Your task to perform on an android device: turn off location Image 0: 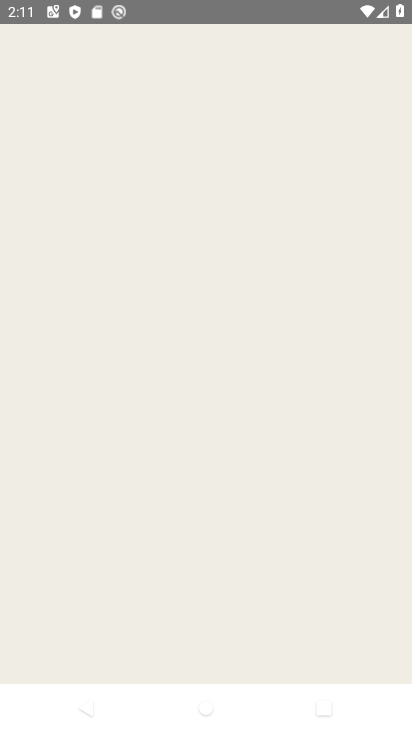
Step 0: click (300, 61)
Your task to perform on an android device: turn off location Image 1: 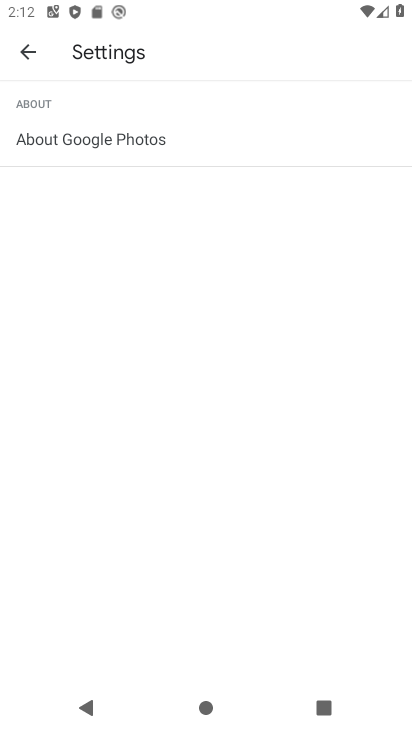
Step 1: press home button
Your task to perform on an android device: turn off location Image 2: 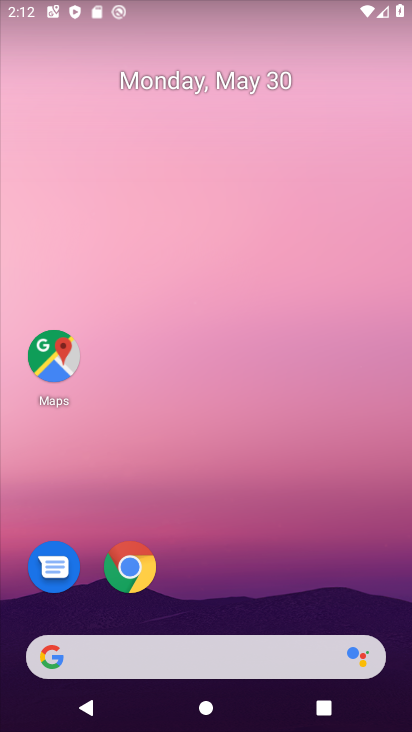
Step 2: drag from (208, 545) to (235, 189)
Your task to perform on an android device: turn off location Image 3: 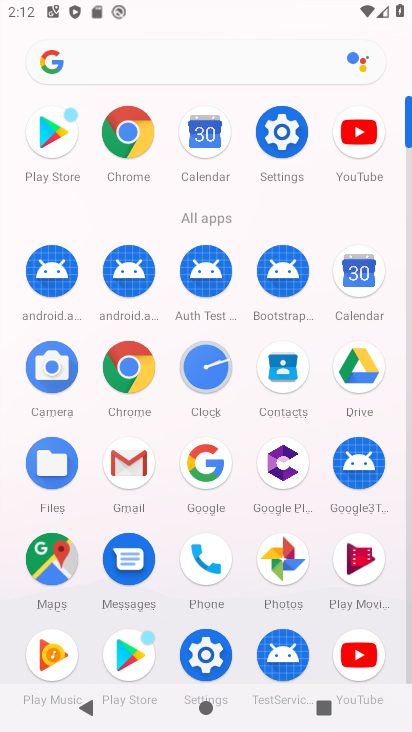
Step 3: click (294, 383)
Your task to perform on an android device: turn off location Image 4: 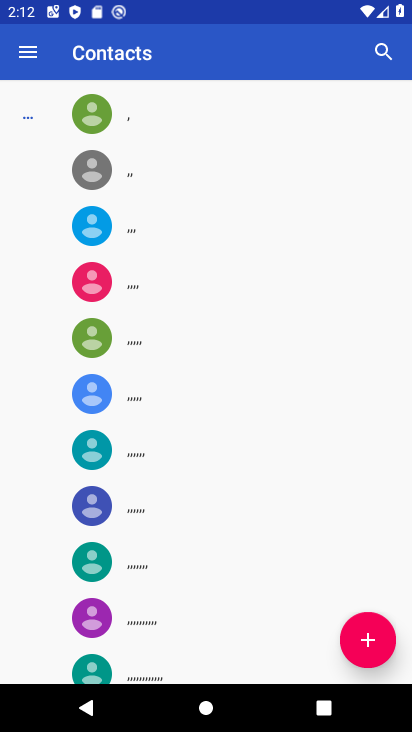
Step 4: press home button
Your task to perform on an android device: turn off location Image 5: 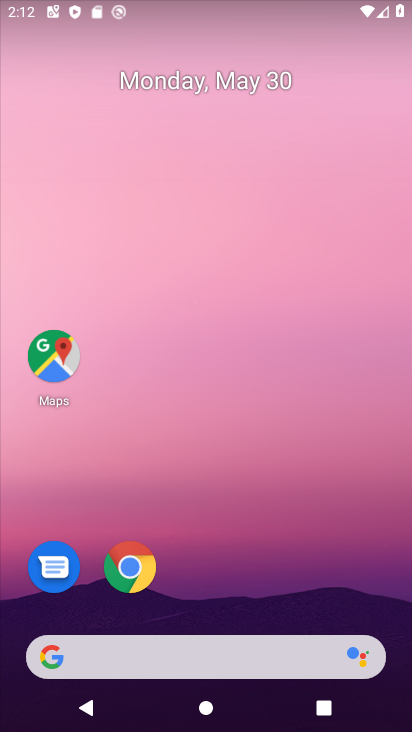
Step 5: drag from (237, 594) to (235, 91)
Your task to perform on an android device: turn off location Image 6: 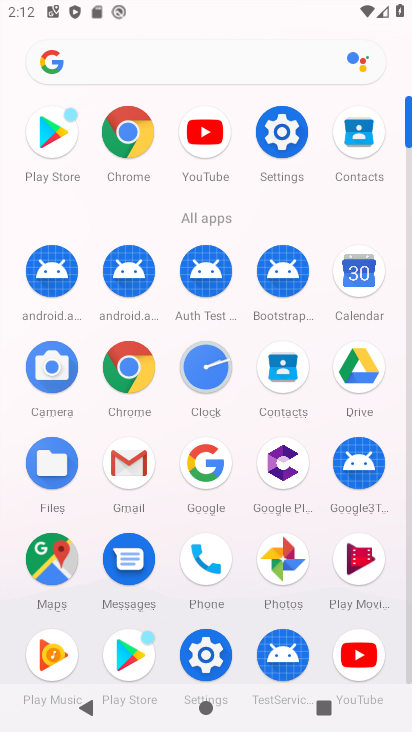
Step 6: click (198, 656)
Your task to perform on an android device: turn off location Image 7: 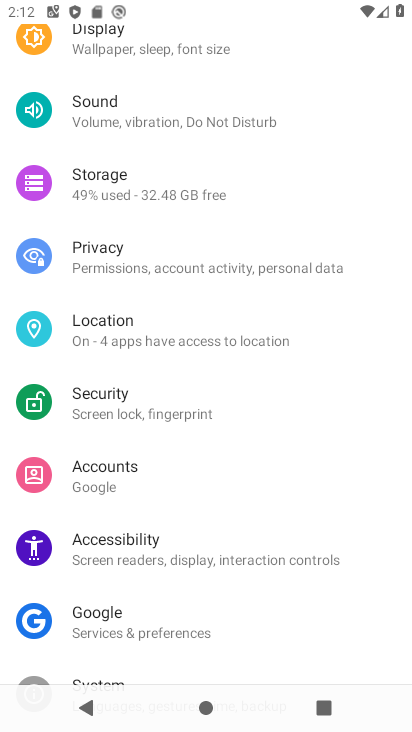
Step 7: click (151, 335)
Your task to perform on an android device: turn off location Image 8: 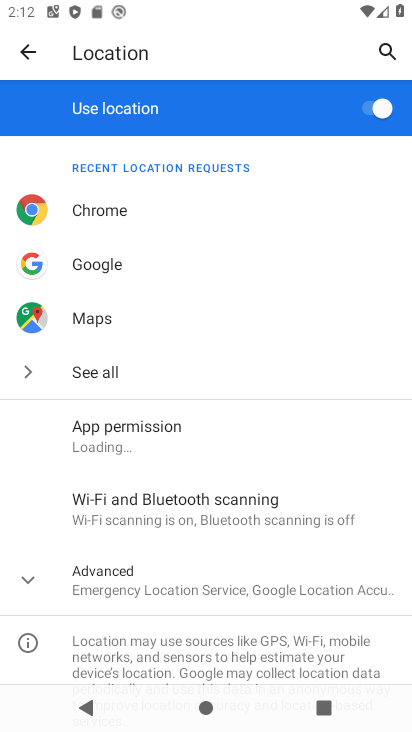
Step 8: click (347, 107)
Your task to perform on an android device: turn off location Image 9: 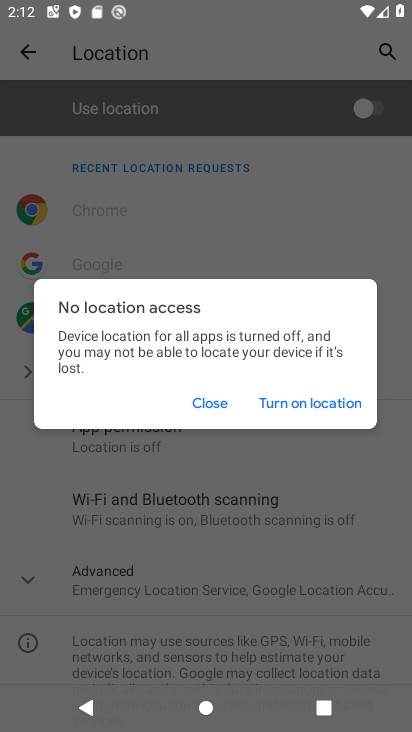
Step 9: click (214, 404)
Your task to perform on an android device: turn off location Image 10: 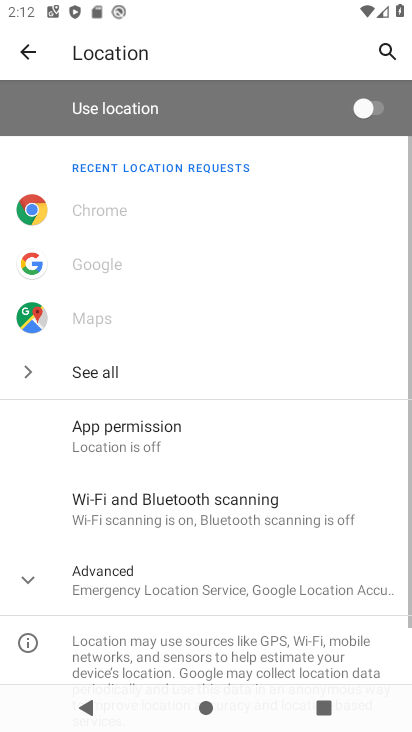
Step 10: task complete